Your task to perform on an android device: turn on the 24-hour format for clock Image 0: 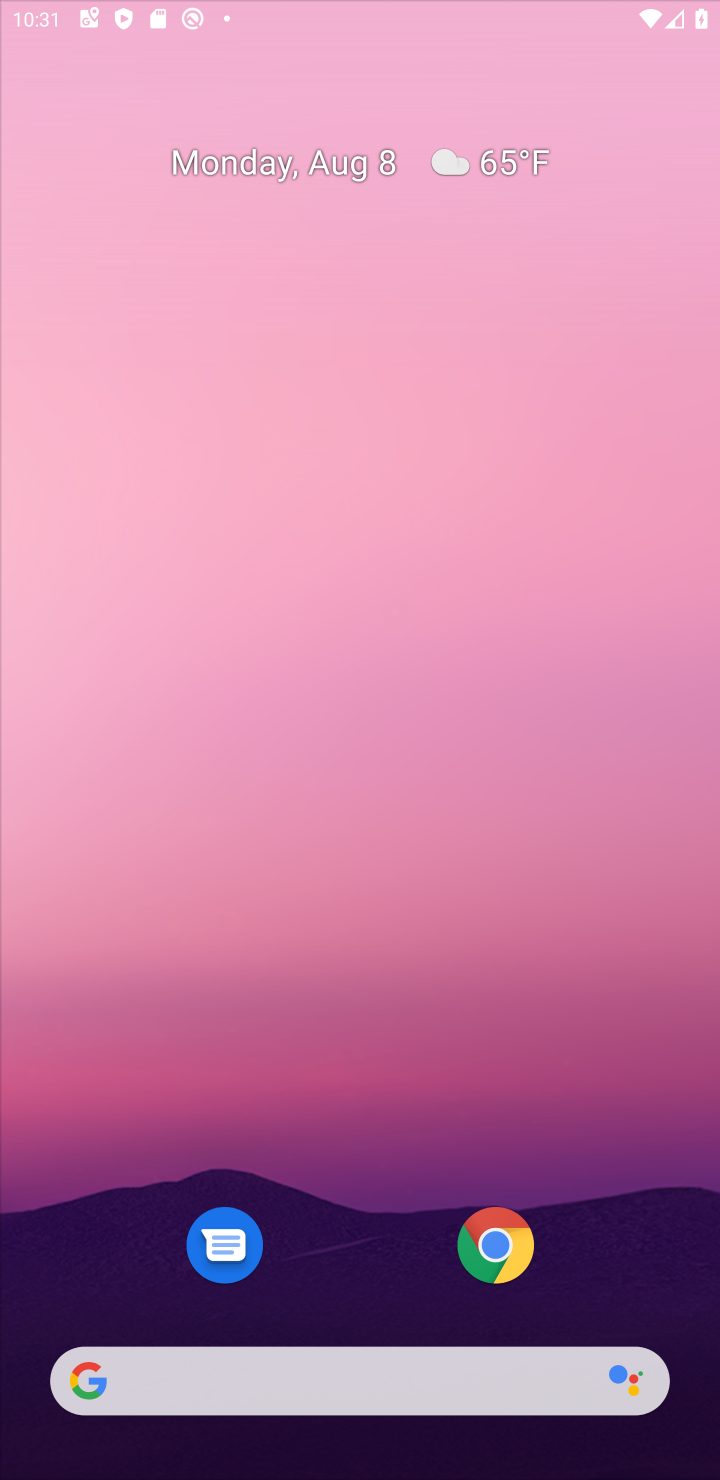
Step 0: press home button
Your task to perform on an android device: turn on the 24-hour format for clock Image 1: 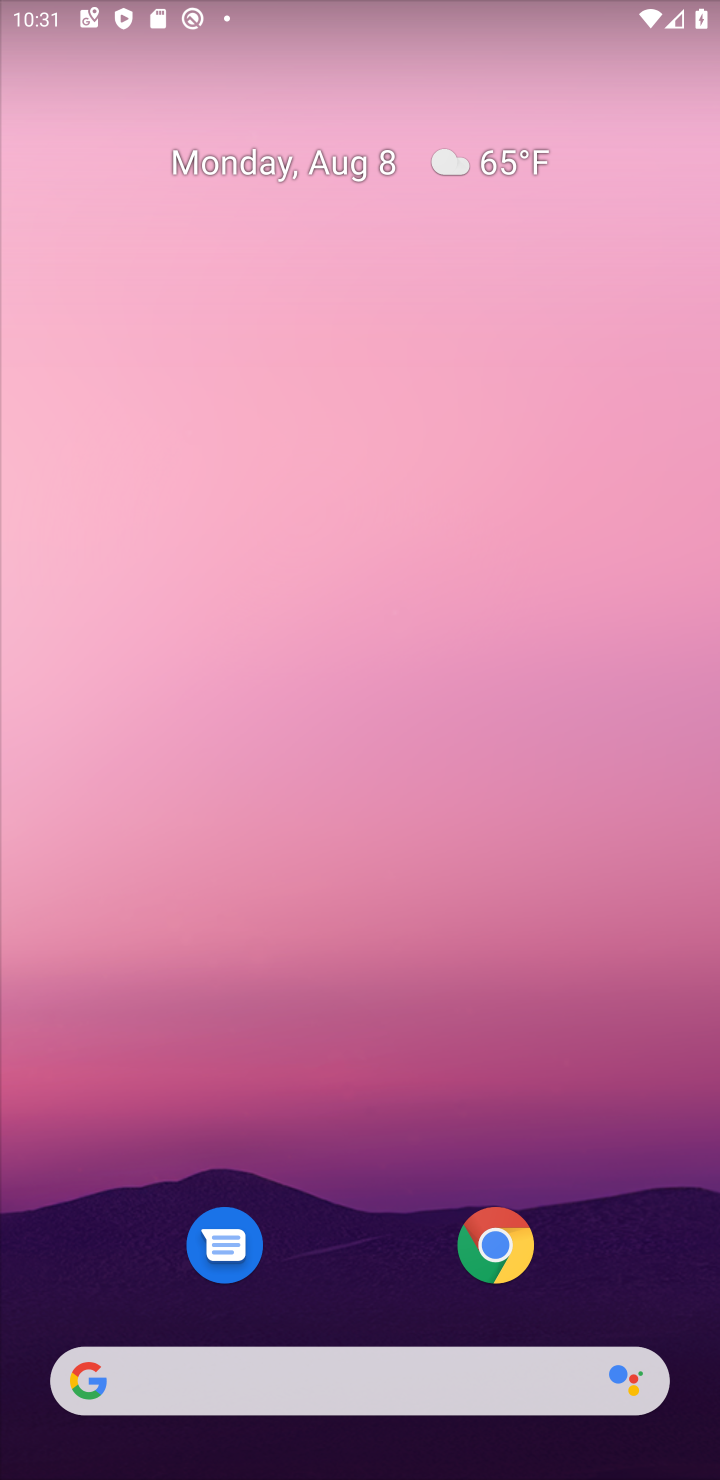
Step 1: drag from (321, 1019) to (145, 176)
Your task to perform on an android device: turn on the 24-hour format for clock Image 2: 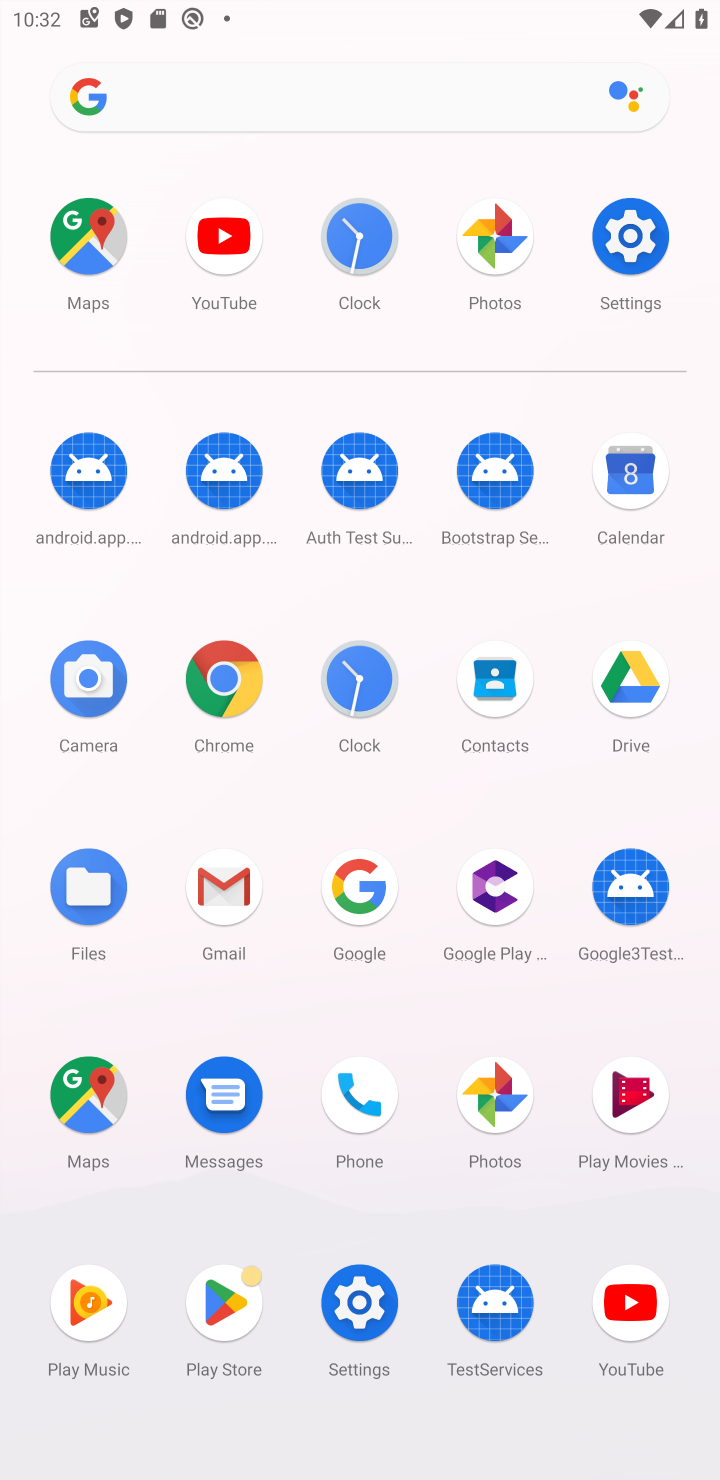
Step 2: click (362, 684)
Your task to perform on an android device: turn on the 24-hour format for clock Image 3: 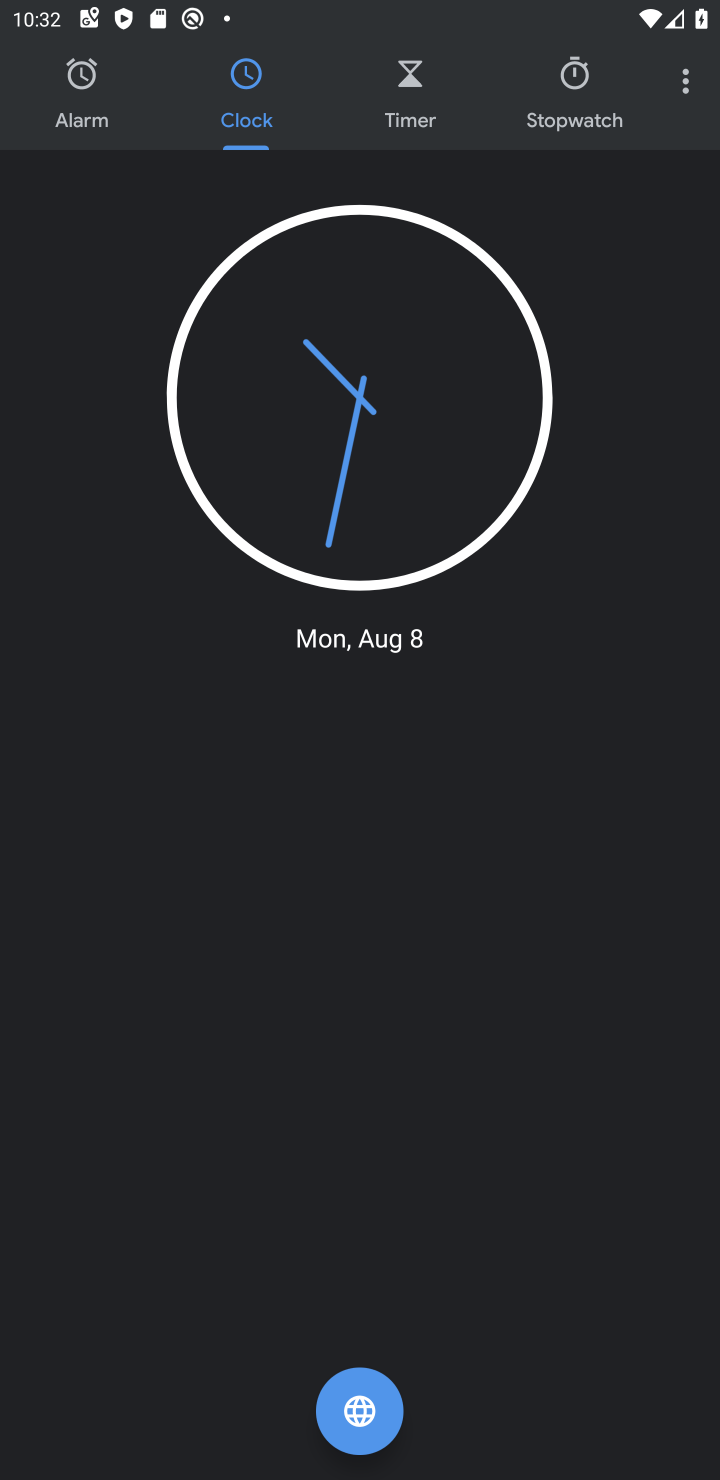
Step 3: click (678, 85)
Your task to perform on an android device: turn on the 24-hour format for clock Image 4: 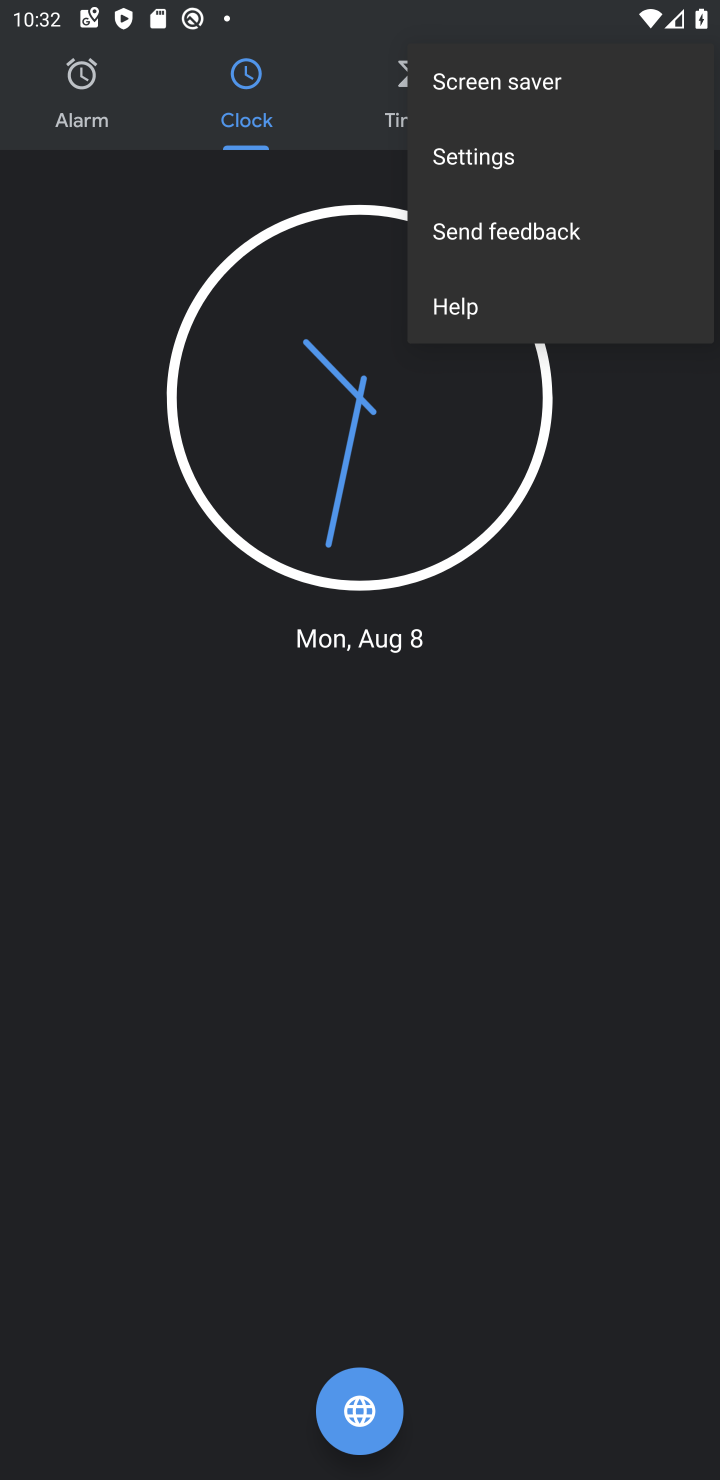
Step 4: click (518, 154)
Your task to perform on an android device: turn on the 24-hour format for clock Image 5: 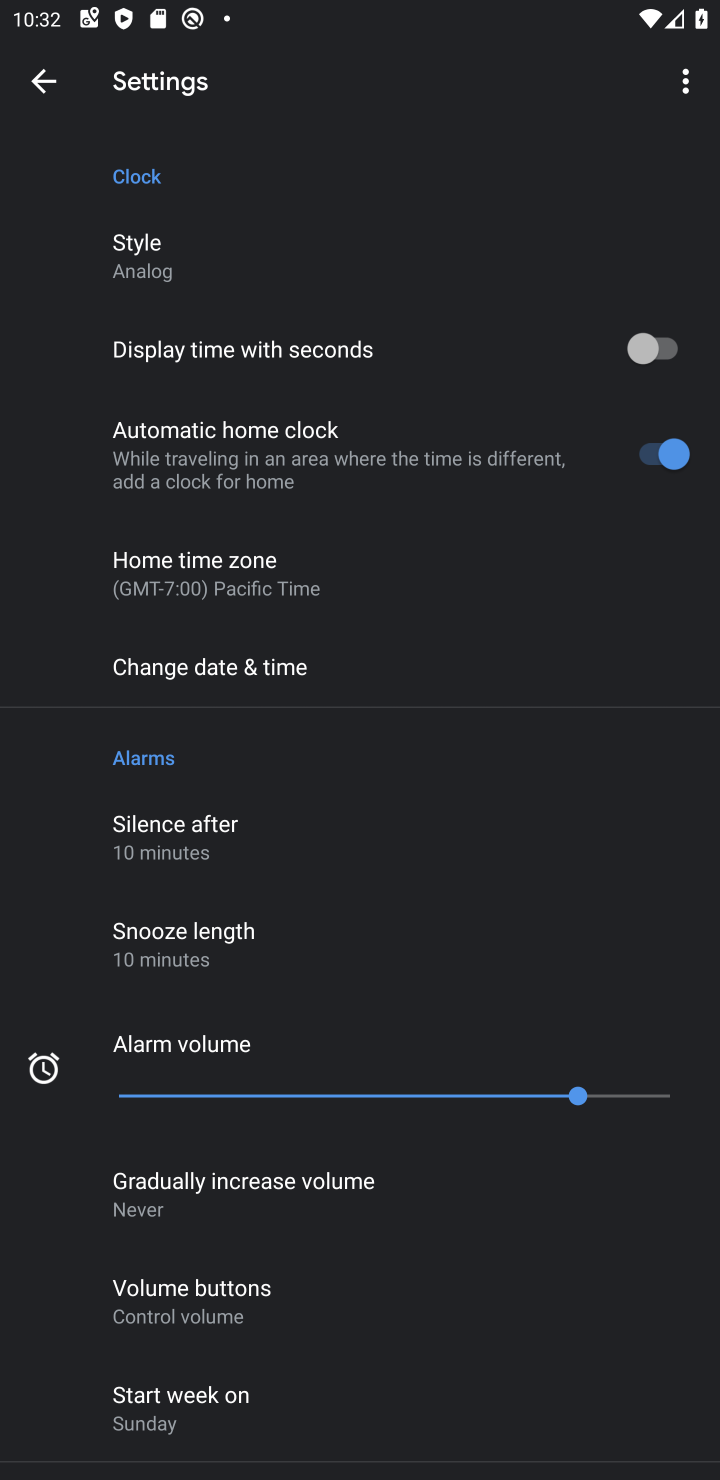
Step 5: click (257, 669)
Your task to perform on an android device: turn on the 24-hour format for clock Image 6: 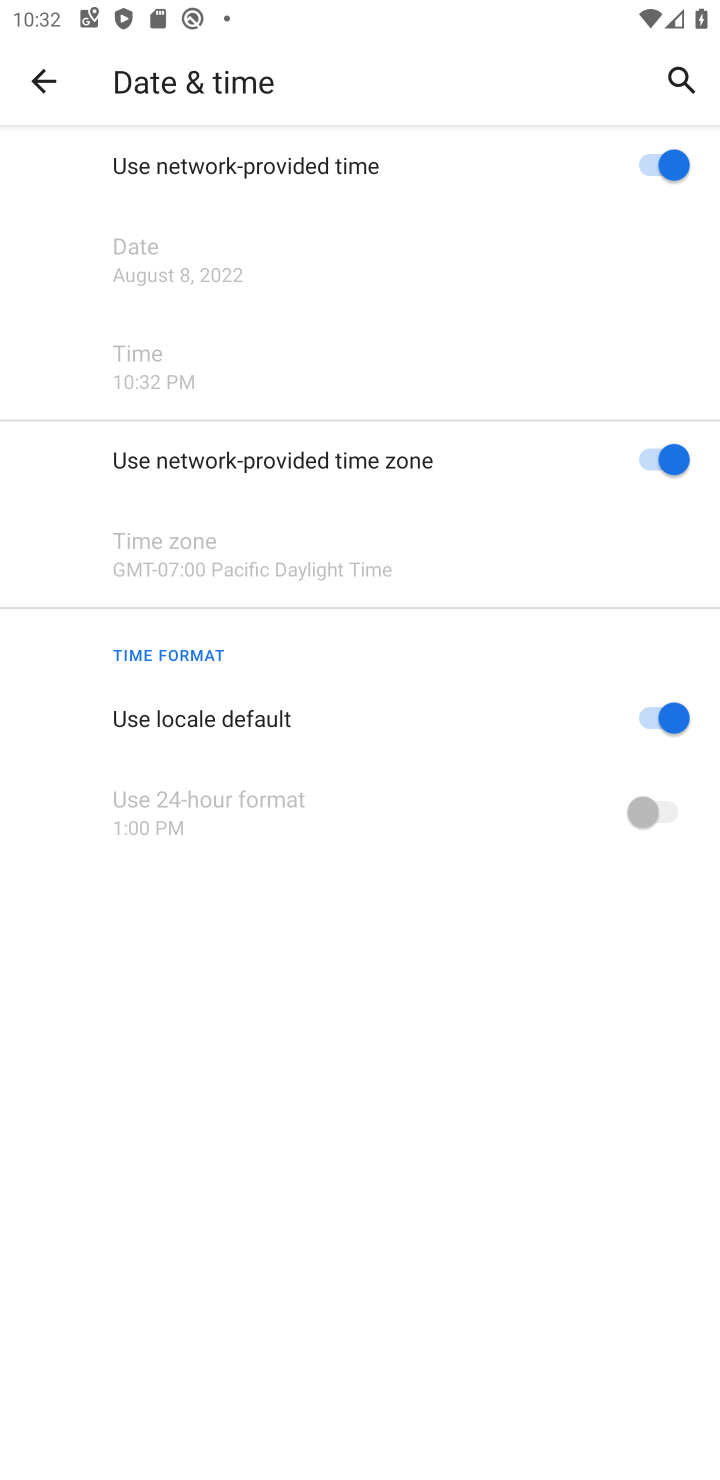
Step 6: click (662, 722)
Your task to perform on an android device: turn on the 24-hour format for clock Image 7: 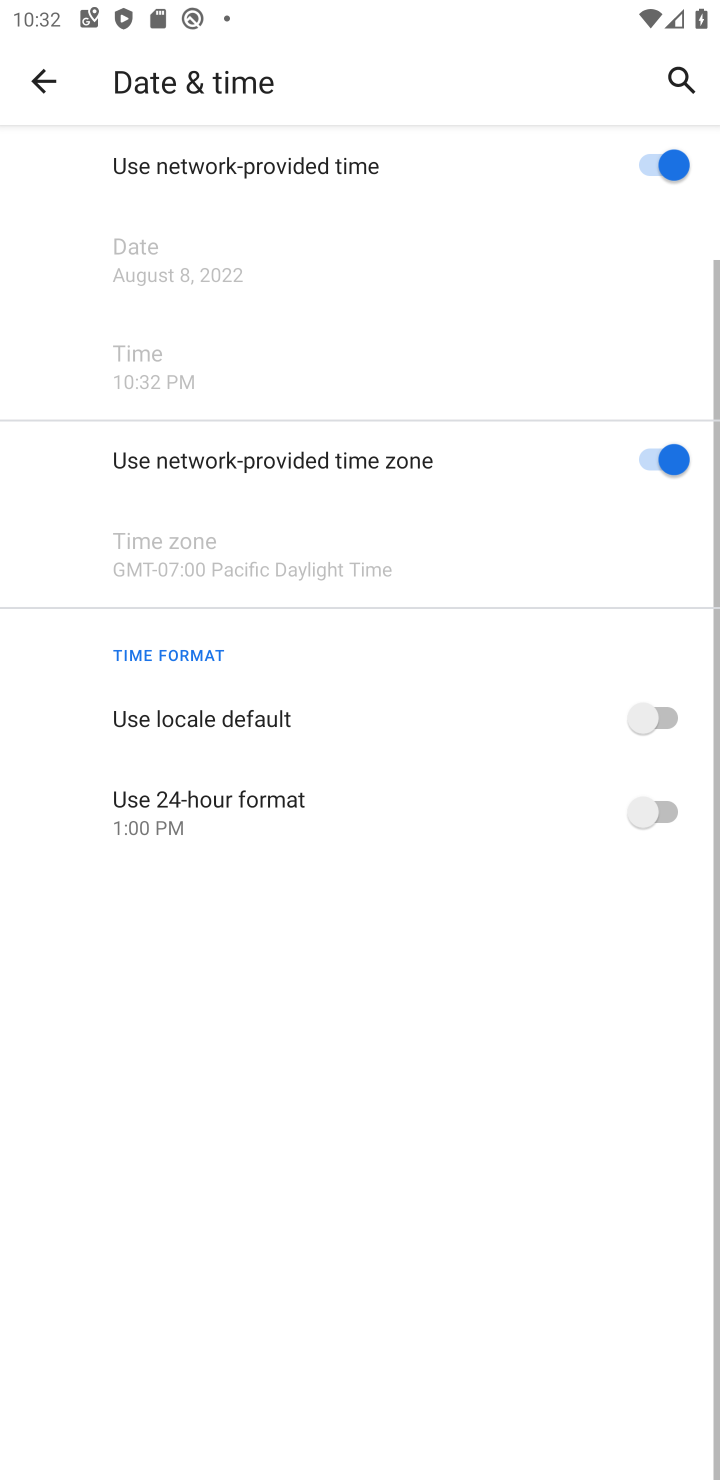
Step 7: click (651, 806)
Your task to perform on an android device: turn on the 24-hour format for clock Image 8: 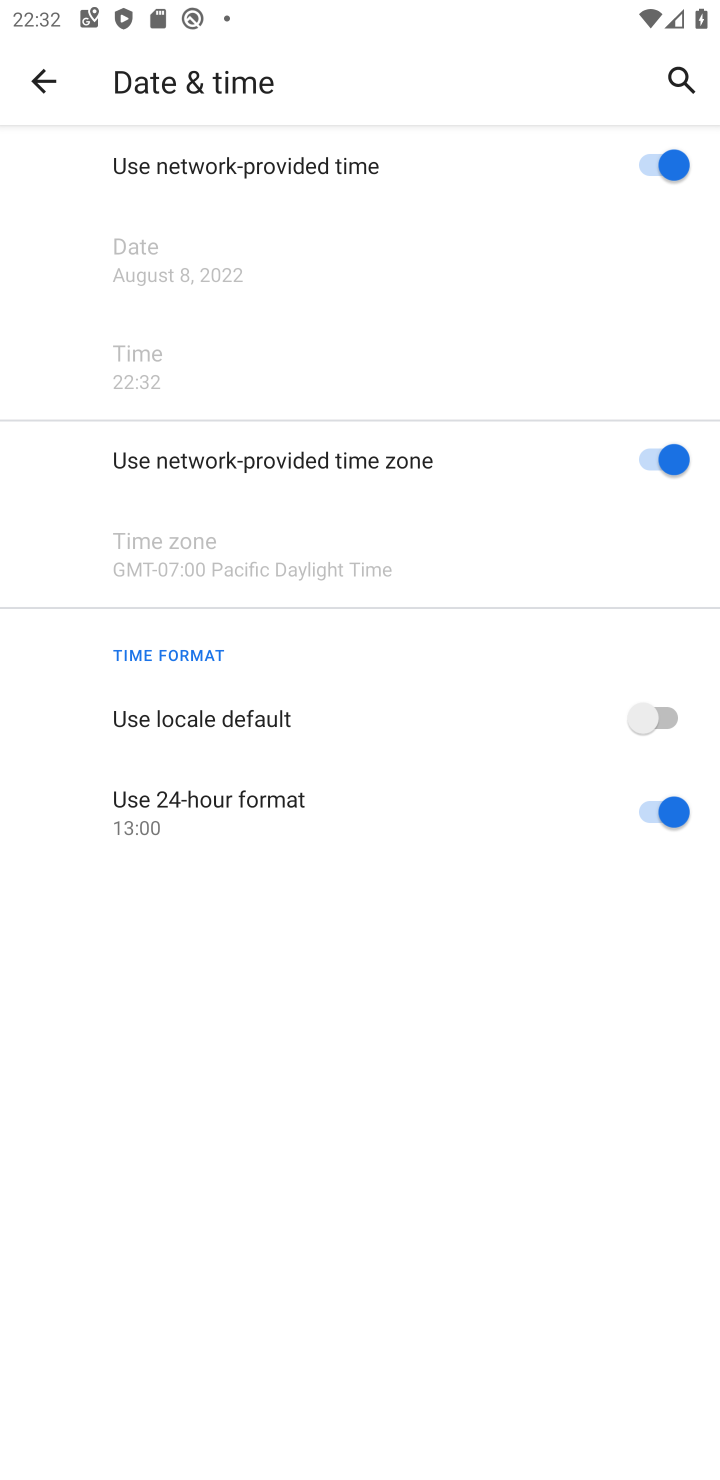
Step 8: task complete